Your task to perform on an android device: see tabs open on other devices in the chrome app Image 0: 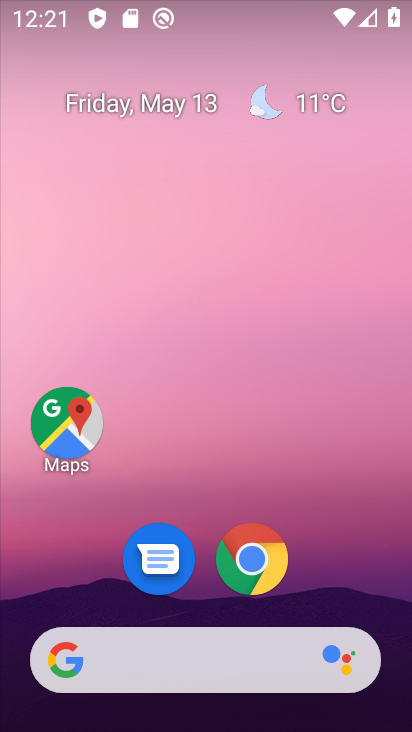
Step 0: click (253, 560)
Your task to perform on an android device: see tabs open on other devices in the chrome app Image 1: 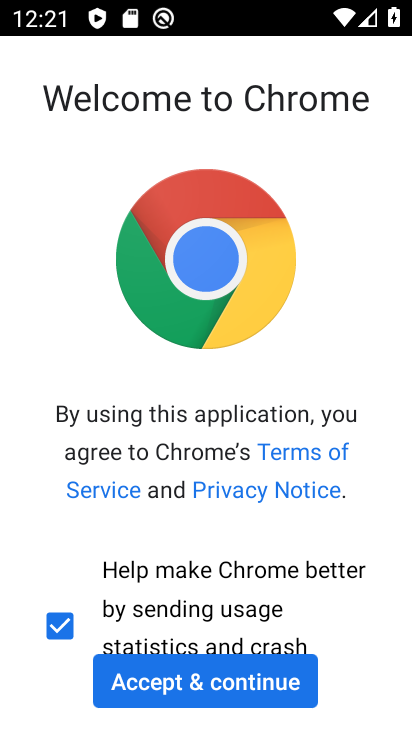
Step 1: click (201, 680)
Your task to perform on an android device: see tabs open on other devices in the chrome app Image 2: 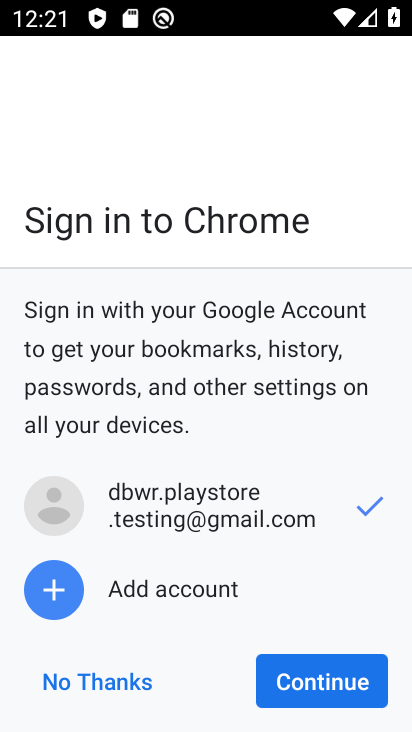
Step 2: click (312, 677)
Your task to perform on an android device: see tabs open on other devices in the chrome app Image 3: 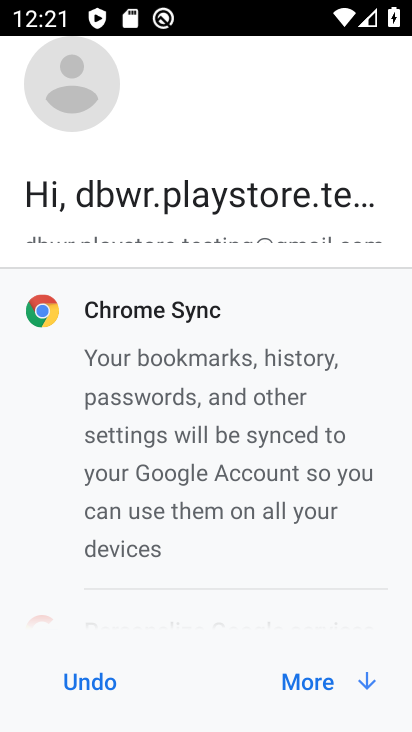
Step 3: click (312, 677)
Your task to perform on an android device: see tabs open on other devices in the chrome app Image 4: 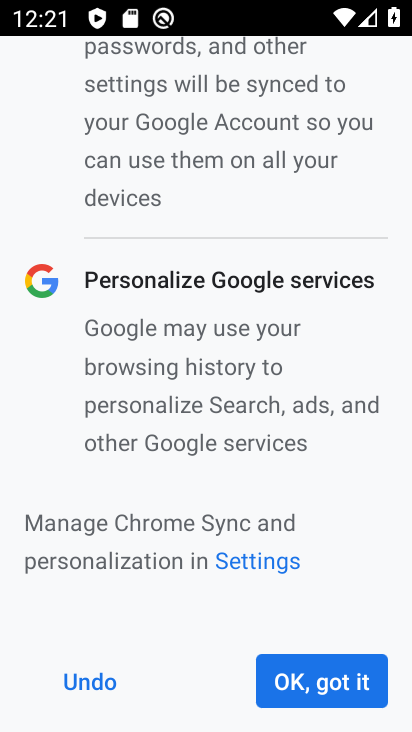
Step 4: click (312, 677)
Your task to perform on an android device: see tabs open on other devices in the chrome app Image 5: 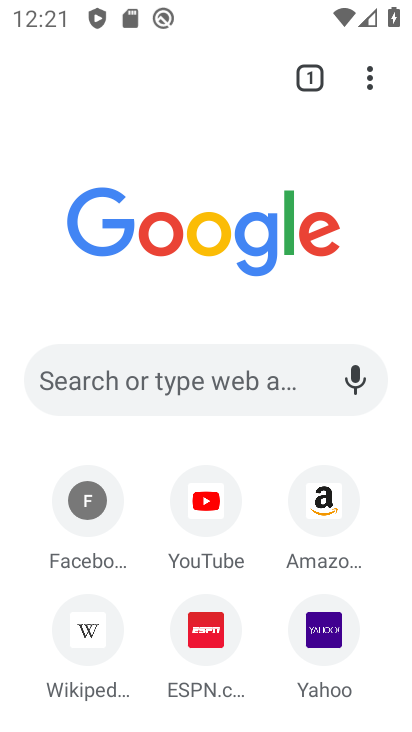
Step 5: click (309, 82)
Your task to perform on an android device: see tabs open on other devices in the chrome app Image 6: 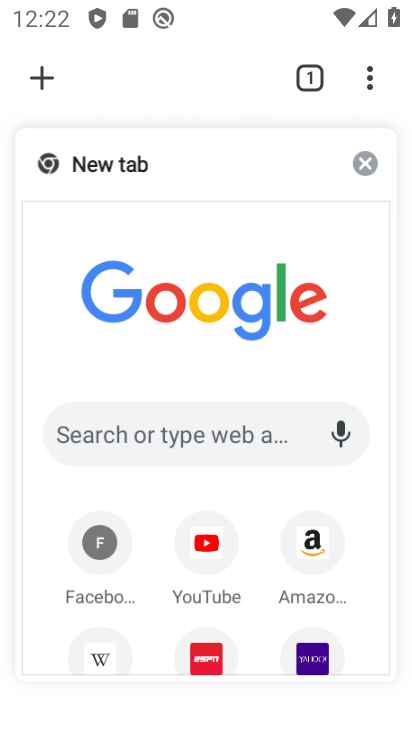
Step 6: task complete